Your task to perform on an android device: turn on notifications settings in the gmail app Image 0: 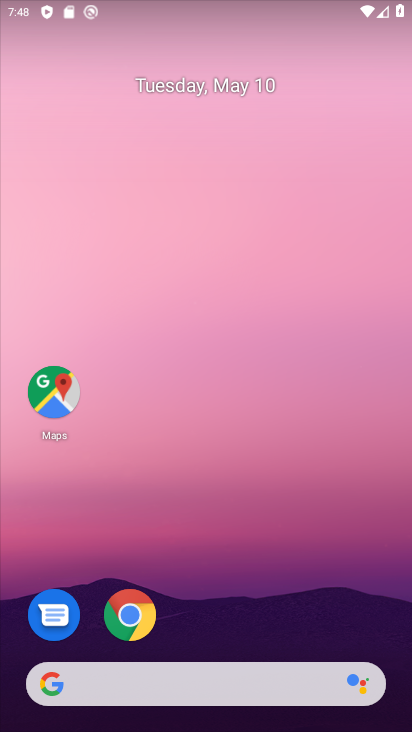
Step 0: click (238, 306)
Your task to perform on an android device: turn on notifications settings in the gmail app Image 1: 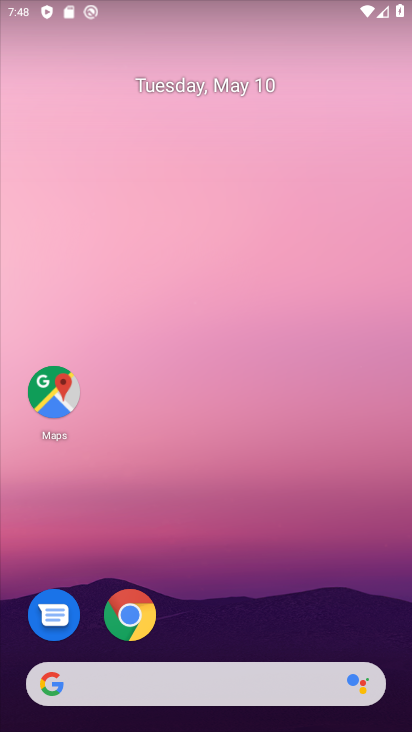
Step 1: drag from (192, 642) to (226, 186)
Your task to perform on an android device: turn on notifications settings in the gmail app Image 2: 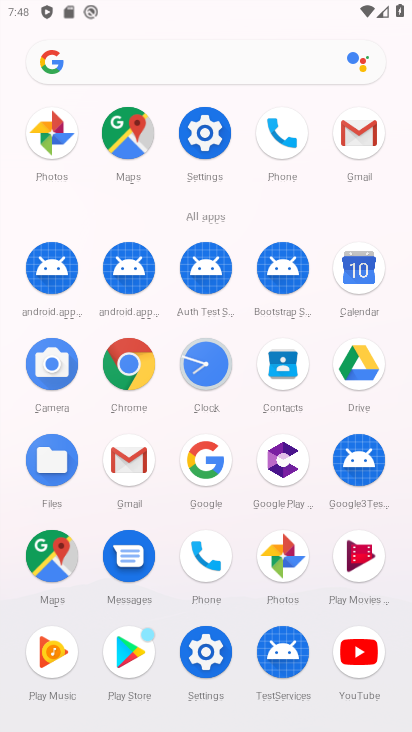
Step 2: click (117, 461)
Your task to perform on an android device: turn on notifications settings in the gmail app Image 3: 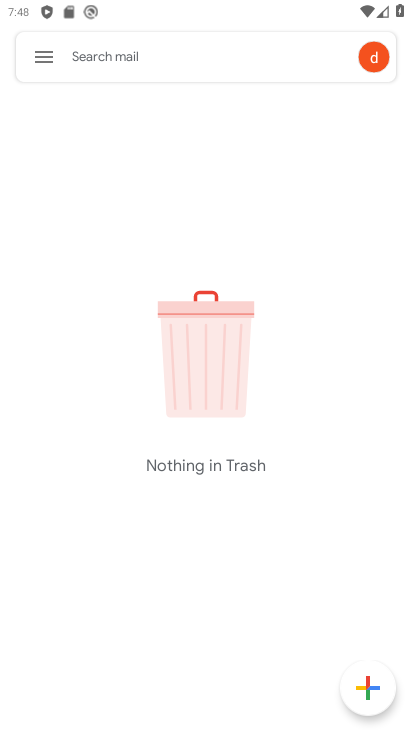
Step 3: click (42, 52)
Your task to perform on an android device: turn on notifications settings in the gmail app Image 4: 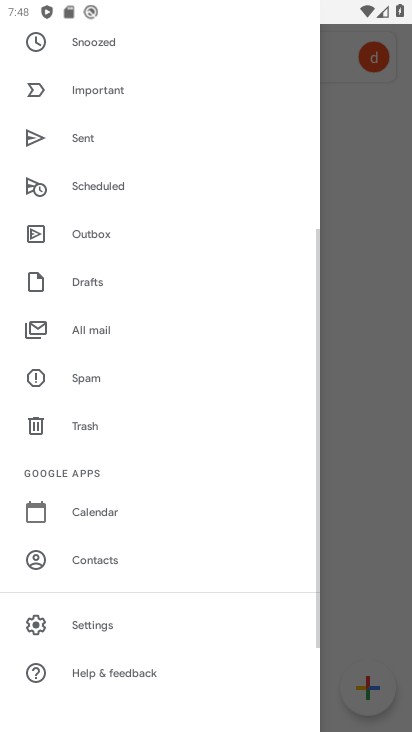
Step 4: drag from (110, 530) to (147, 139)
Your task to perform on an android device: turn on notifications settings in the gmail app Image 5: 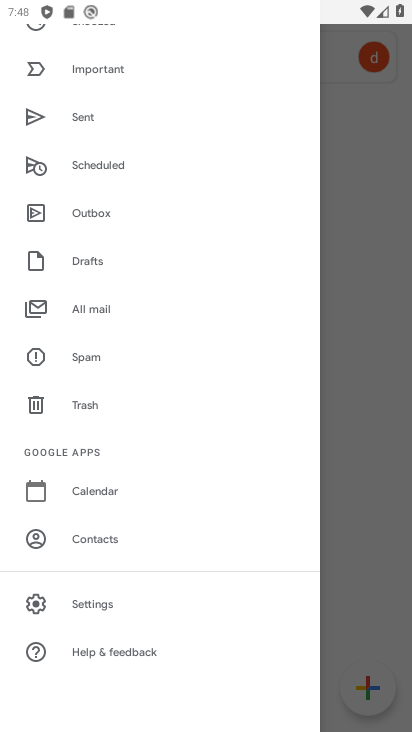
Step 5: click (117, 594)
Your task to perform on an android device: turn on notifications settings in the gmail app Image 6: 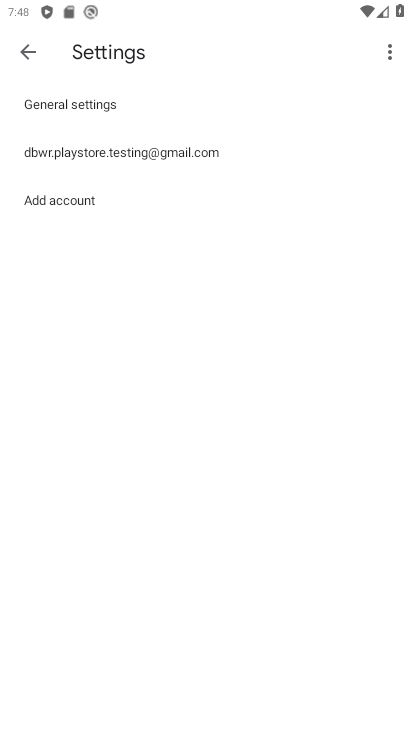
Step 6: click (190, 164)
Your task to perform on an android device: turn on notifications settings in the gmail app Image 7: 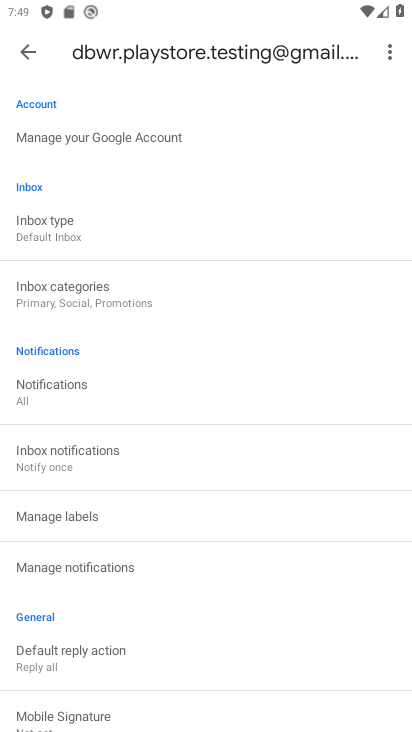
Step 7: click (106, 564)
Your task to perform on an android device: turn on notifications settings in the gmail app Image 8: 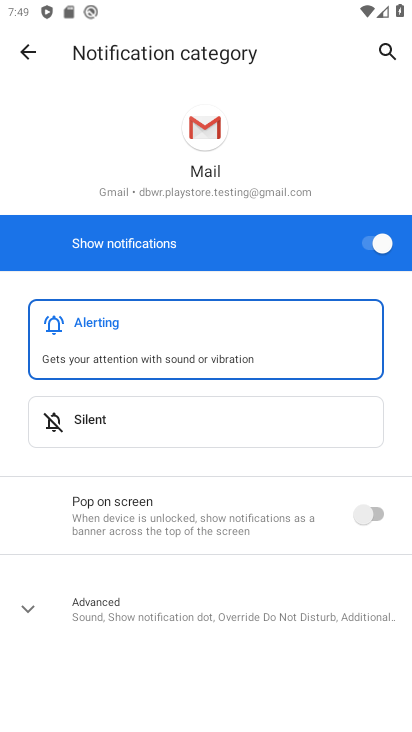
Step 8: task complete